Your task to perform on an android device: check android version Image 0: 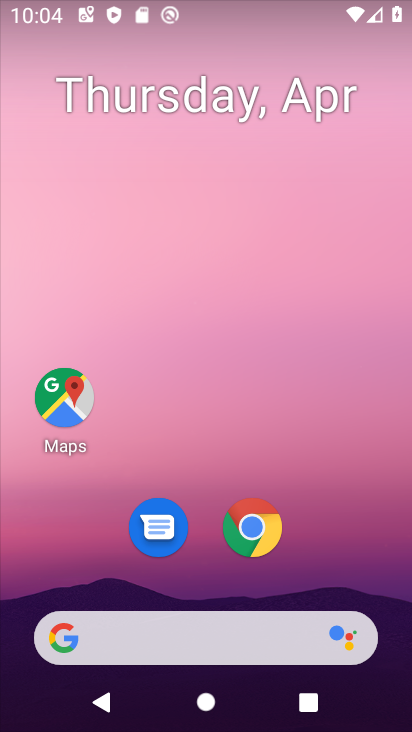
Step 0: drag from (310, 498) to (273, 0)
Your task to perform on an android device: check android version Image 1: 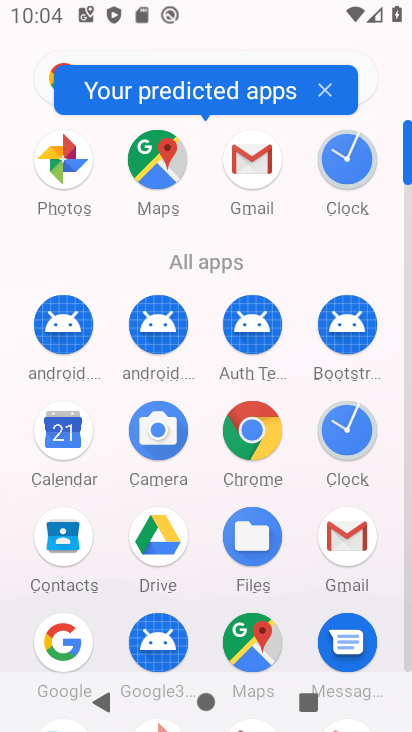
Step 1: drag from (374, 454) to (347, 242)
Your task to perform on an android device: check android version Image 2: 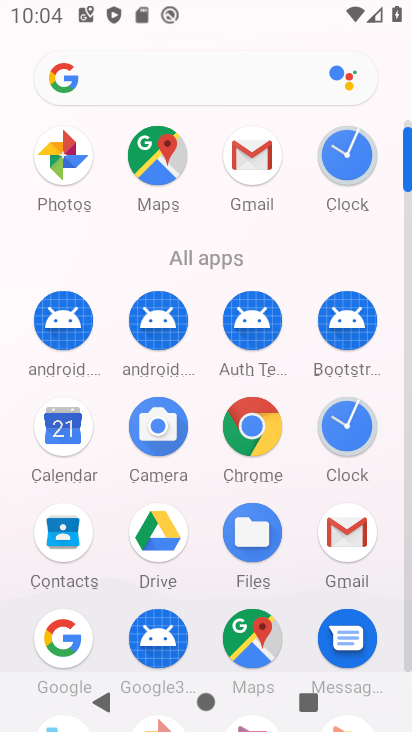
Step 2: drag from (396, 444) to (399, 174)
Your task to perform on an android device: check android version Image 3: 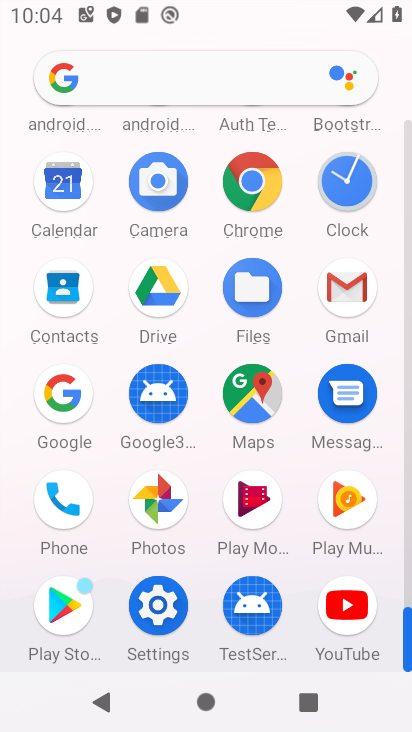
Step 3: click (158, 602)
Your task to perform on an android device: check android version Image 4: 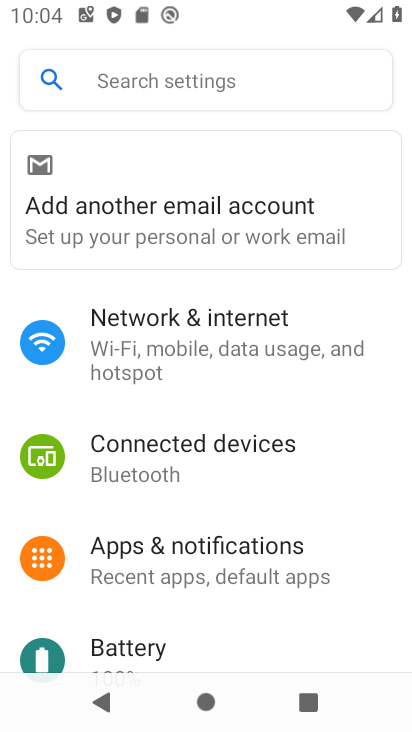
Step 4: drag from (257, 322) to (286, 77)
Your task to perform on an android device: check android version Image 5: 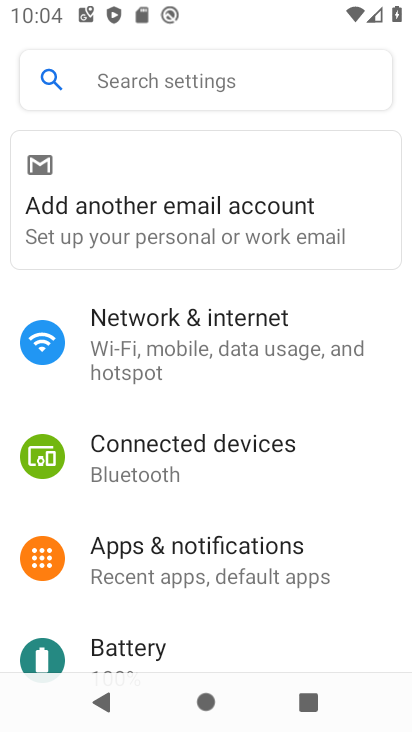
Step 5: drag from (238, 459) to (217, 225)
Your task to perform on an android device: check android version Image 6: 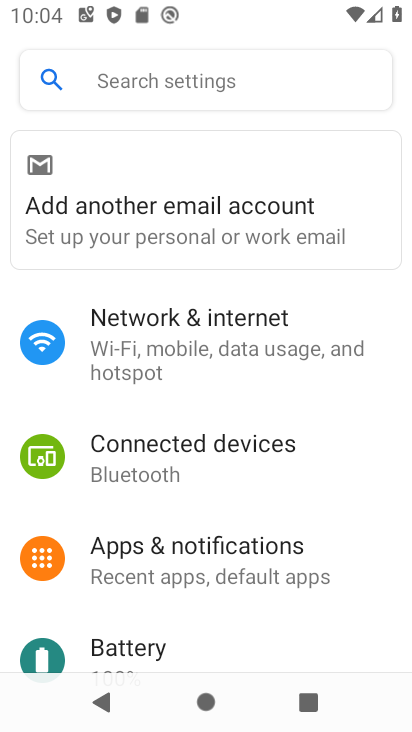
Step 6: drag from (201, 549) to (204, 170)
Your task to perform on an android device: check android version Image 7: 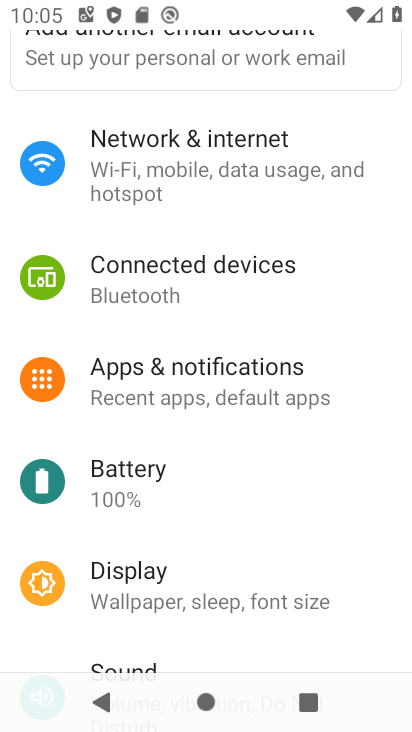
Step 7: drag from (130, 528) to (124, 156)
Your task to perform on an android device: check android version Image 8: 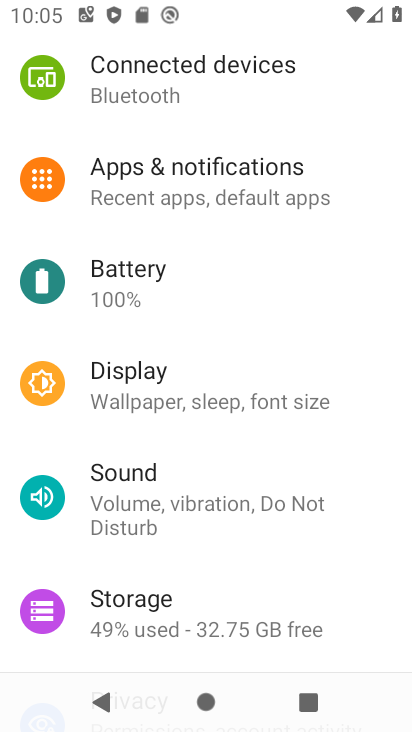
Step 8: drag from (152, 520) to (163, 134)
Your task to perform on an android device: check android version Image 9: 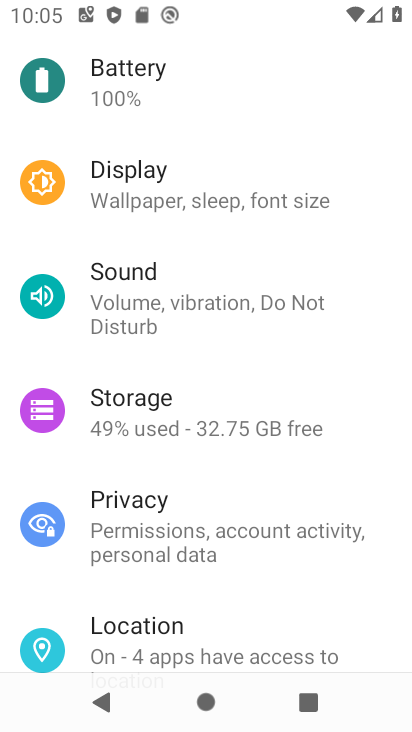
Step 9: drag from (178, 535) to (177, 141)
Your task to perform on an android device: check android version Image 10: 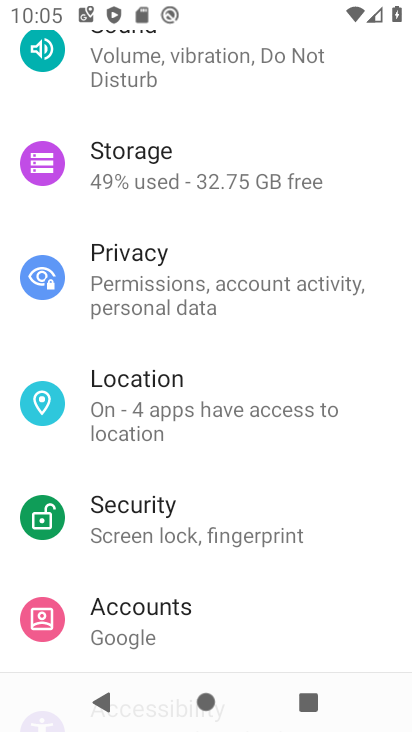
Step 10: drag from (157, 611) to (197, 129)
Your task to perform on an android device: check android version Image 11: 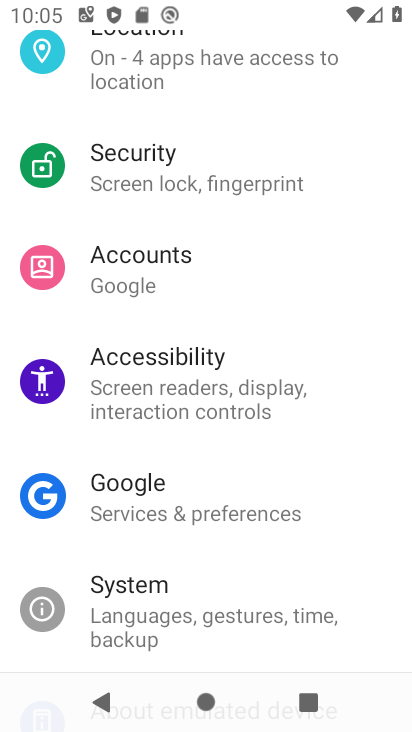
Step 11: drag from (259, 506) to (253, 117)
Your task to perform on an android device: check android version Image 12: 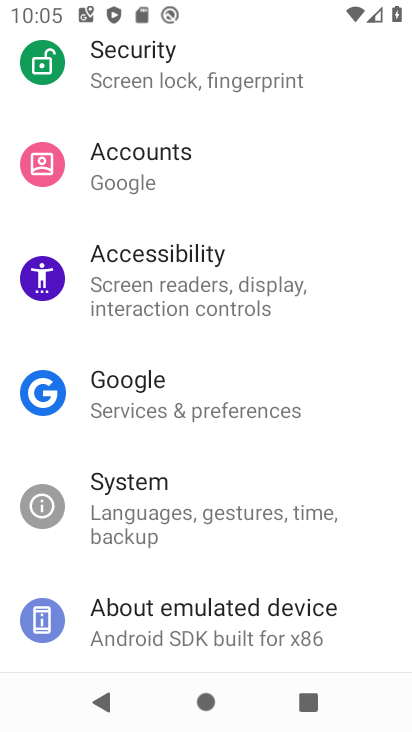
Step 12: drag from (175, 572) to (191, 223)
Your task to perform on an android device: check android version Image 13: 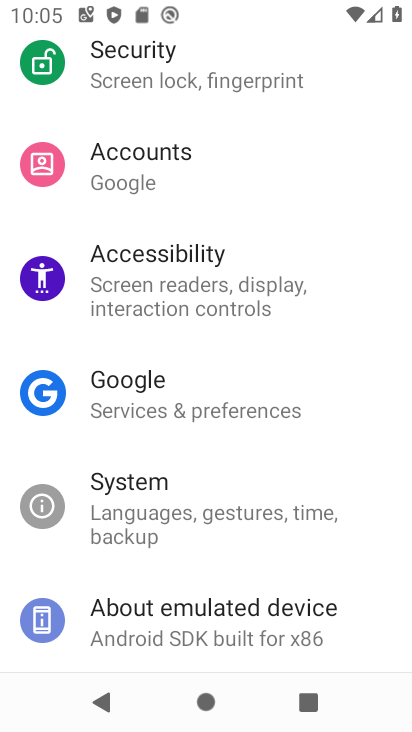
Step 13: click (170, 647)
Your task to perform on an android device: check android version Image 14: 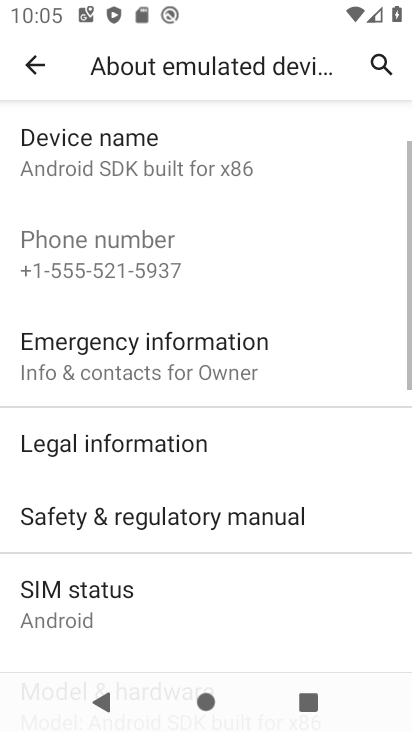
Step 14: drag from (194, 592) to (194, 156)
Your task to perform on an android device: check android version Image 15: 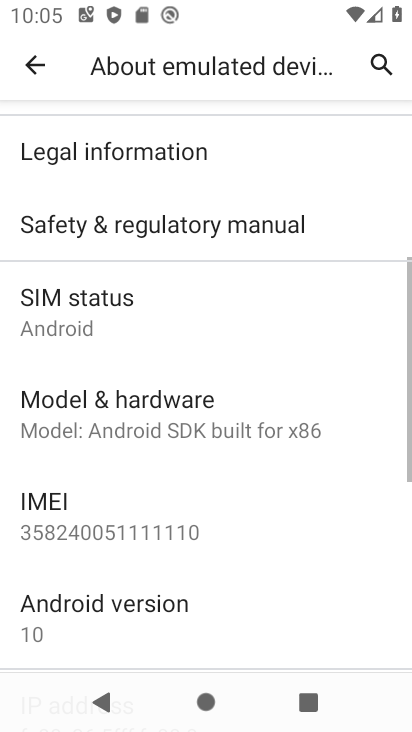
Step 15: drag from (165, 565) to (213, 191)
Your task to perform on an android device: check android version Image 16: 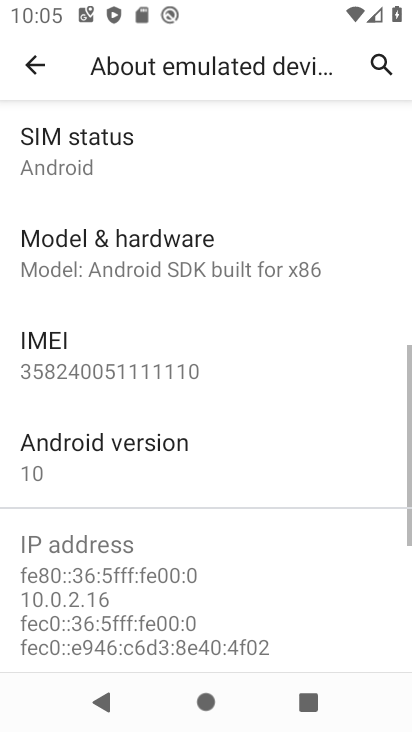
Step 16: click (99, 448)
Your task to perform on an android device: check android version Image 17: 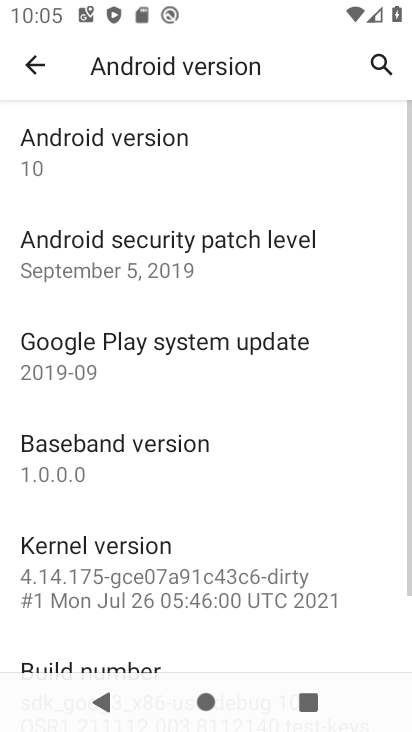
Step 17: click (120, 137)
Your task to perform on an android device: check android version Image 18: 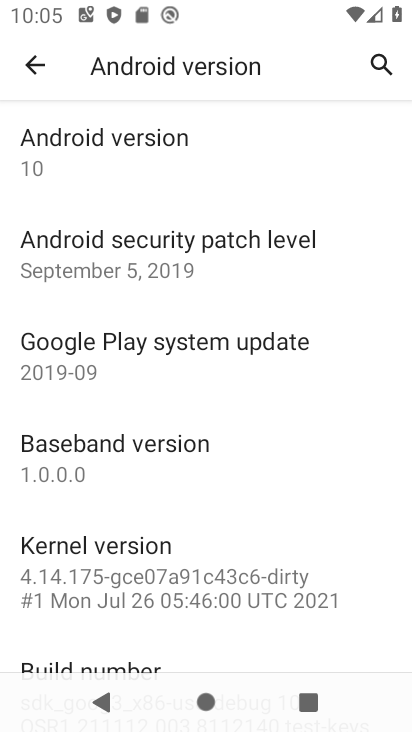
Step 18: task complete